Your task to perform on an android device: Open Youtube and go to the subscriptions tab Image 0: 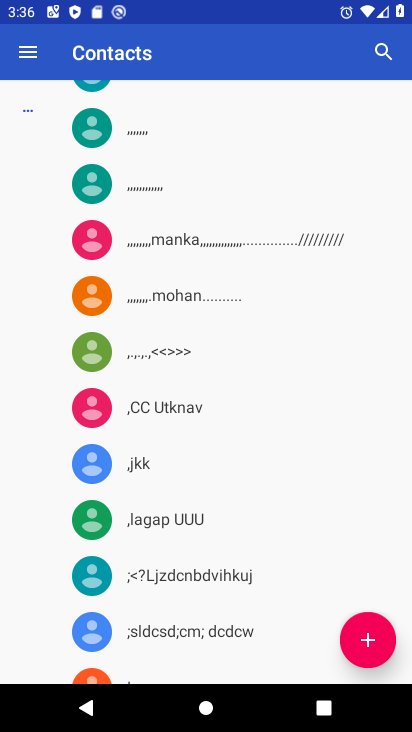
Step 0: press back button
Your task to perform on an android device: Open Youtube and go to the subscriptions tab Image 1: 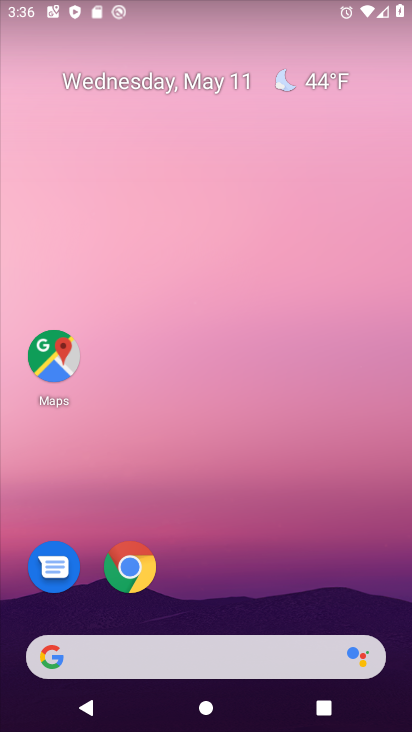
Step 1: drag from (201, 507) to (149, 14)
Your task to perform on an android device: Open Youtube and go to the subscriptions tab Image 2: 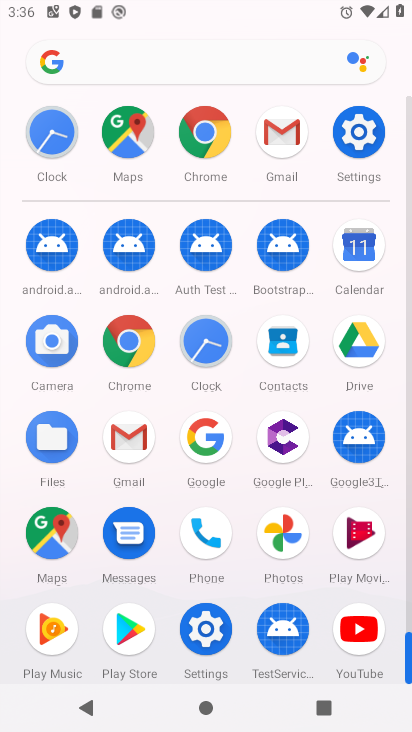
Step 2: click (362, 627)
Your task to perform on an android device: Open Youtube and go to the subscriptions tab Image 3: 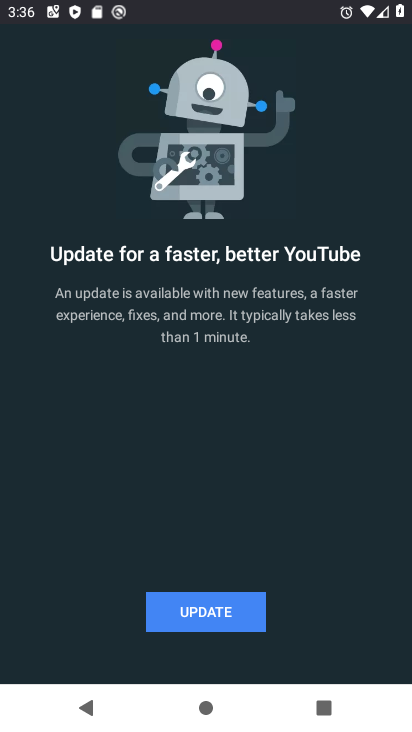
Step 3: click (196, 603)
Your task to perform on an android device: Open Youtube and go to the subscriptions tab Image 4: 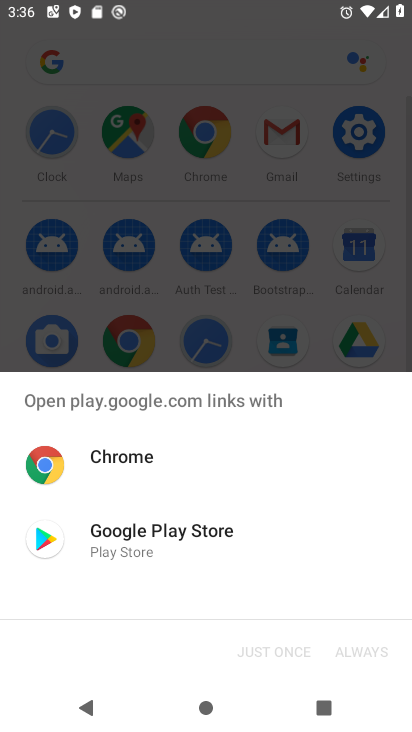
Step 4: click (158, 530)
Your task to perform on an android device: Open Youtube and go to the subscriptions tab Image 5: 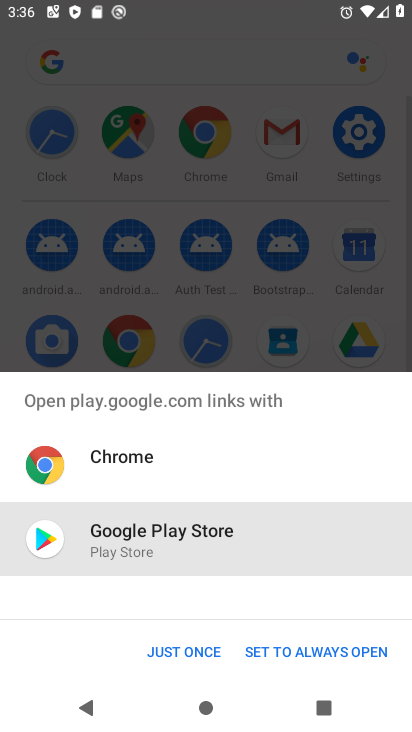
Step 5: click (158, 650)
Your task to perform on an android device: Open Youtube and go to the subscriptions tab Image 6: 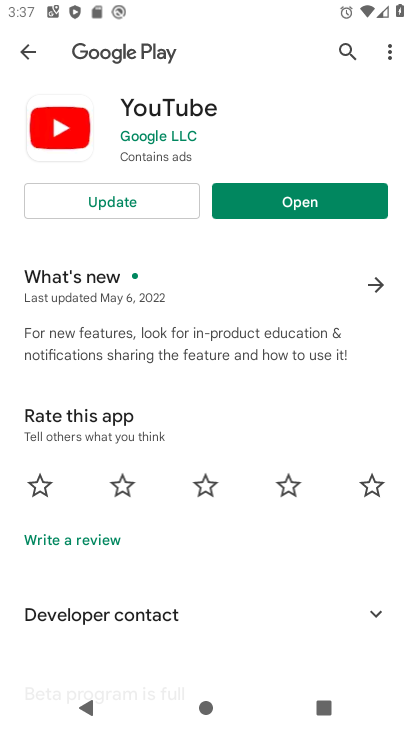
Step 6: click (246, 201)
Your task to perform on an android device: Open Youtube and go to the subscriptions tab Image 7: 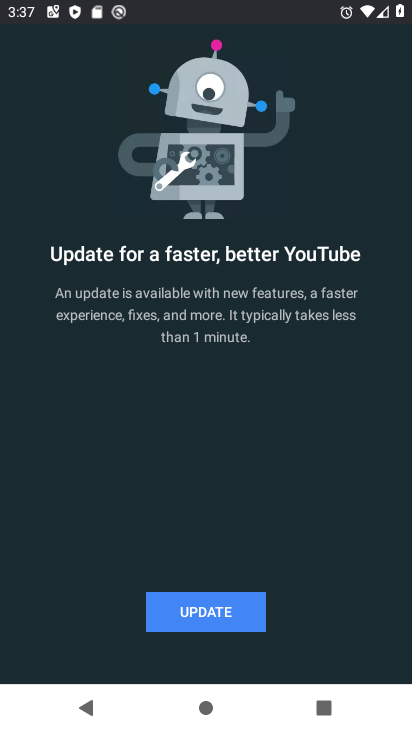
Step 7: click (210, 592)
Your task to perform on an android device: Open Youtube and go to the subscriptions tab Image 8: 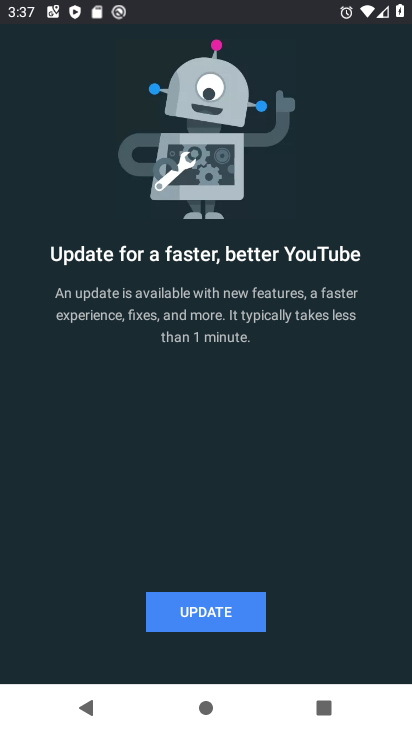
Step 8: click (206, 613)
Your task to perform on an android device: Open Youtube and go to the subscriptions tab Image 9: 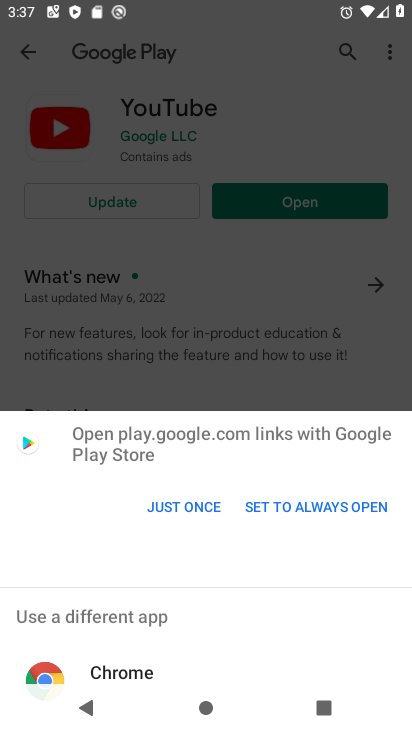
Step 9: click (170, 509)
Your task to perform on an android device: Open Youtube and go to the subscriptions tab Image 10: 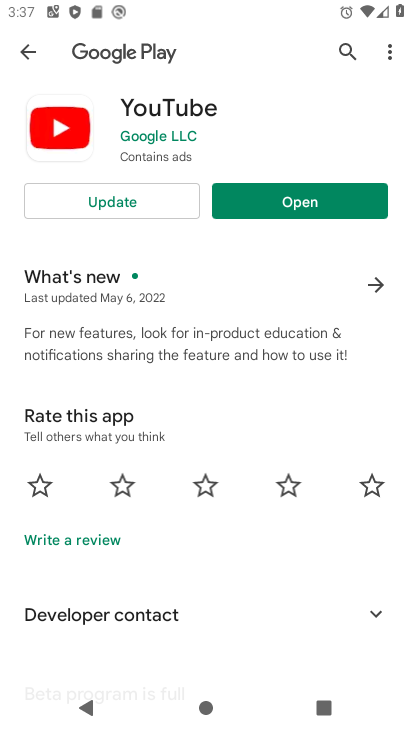
Step 10: click (117, 199)
Your task to perform on an android device: Open Youtube and go to the subscriptions tab Image 11: 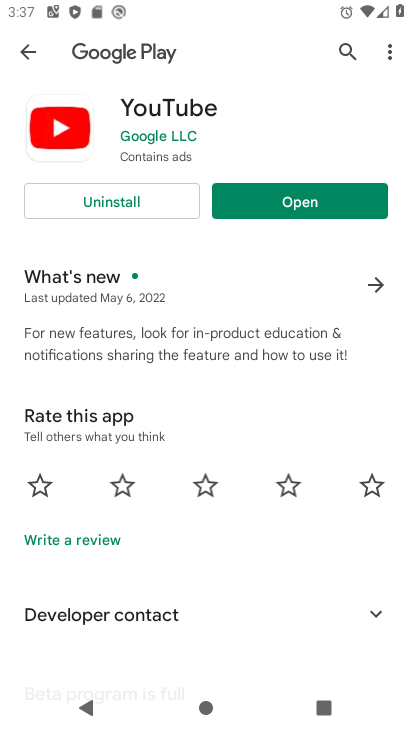
Step 11: click (321, 202)
Your task to perform on an android device: Open Youtube and go to the subscriptions tab Image 12: 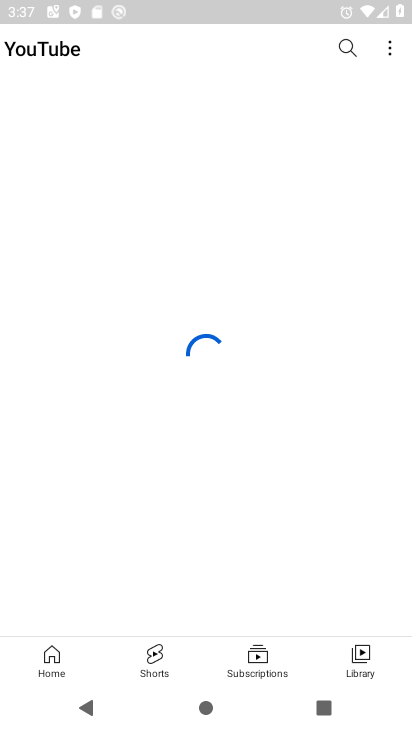
Step 12: click (258, 658)
Your task to perform on an android device: Open Youtube and go to the subscriptions tab Image 13: 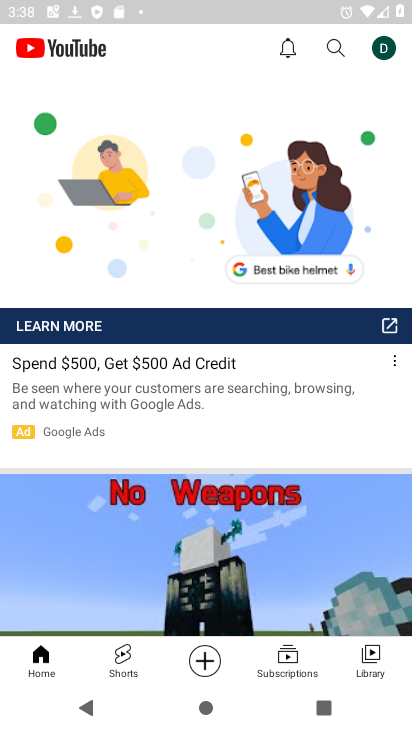
Step 13: click (287, 662)
Your task to perform on an android device: Open Youtube and go to the subscriptions tab Image 14: 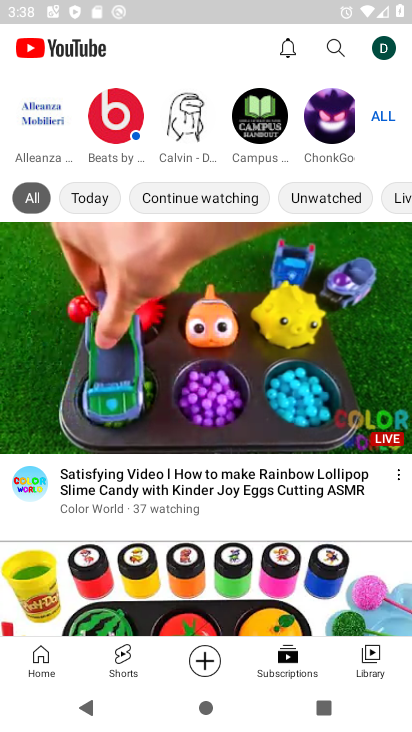
Step 14: task complete